Your task to perform on an android device: Open wifi settings Image 0: 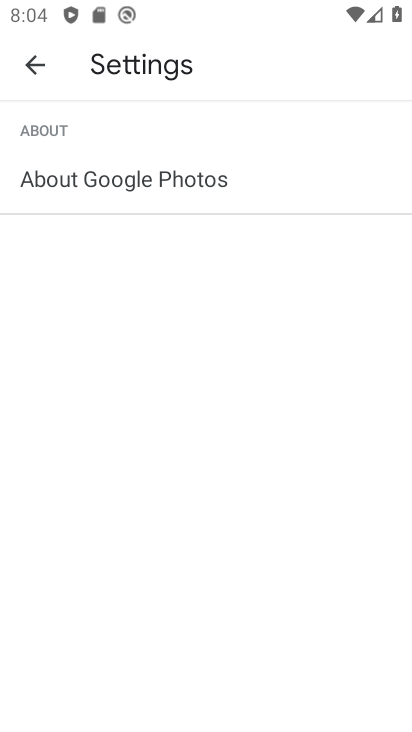
Step 0: press home button
Your task to perform on an android device: Open wifi settings Image 1: 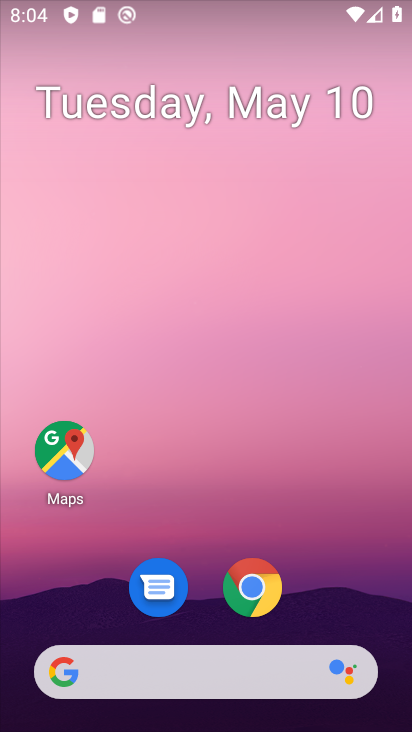
Step 1: drag from (329, 617) to (276, 157)
Your task to perform on an android device: Open wifi settings Image 2: 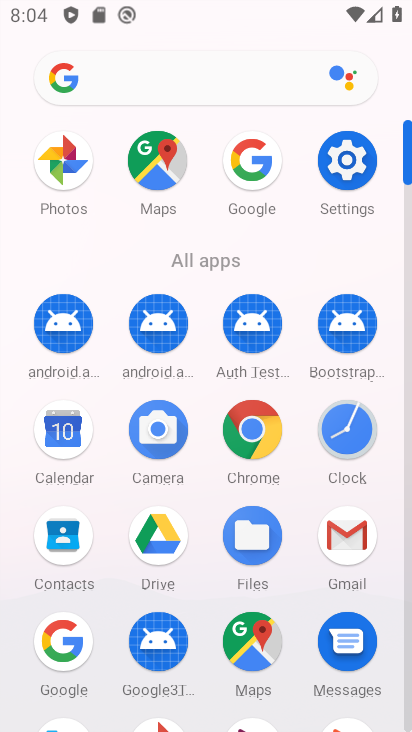
Step 2: click (356, 174)
Your task to perform on an android device: Open wifi settings Image 3: 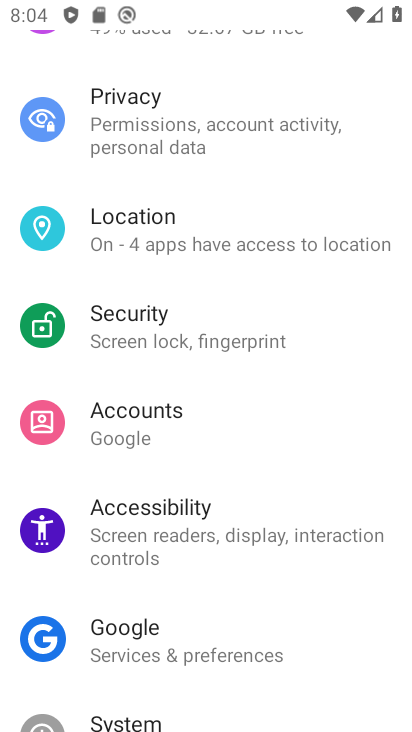
Step 3: drag from (265, 150) to (182, 561)
Your task to perform on an android device: Open wifi settings Image 4: 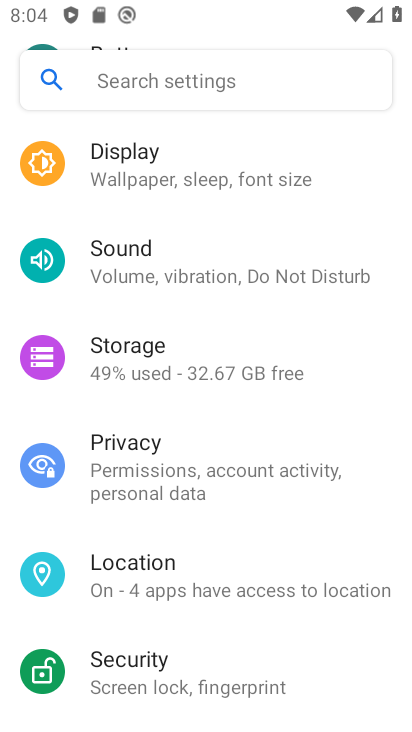
Step 4: drag from (229, 232) to (157, 607)
Your task to perform on an android device: Open wifi settings Image 5: 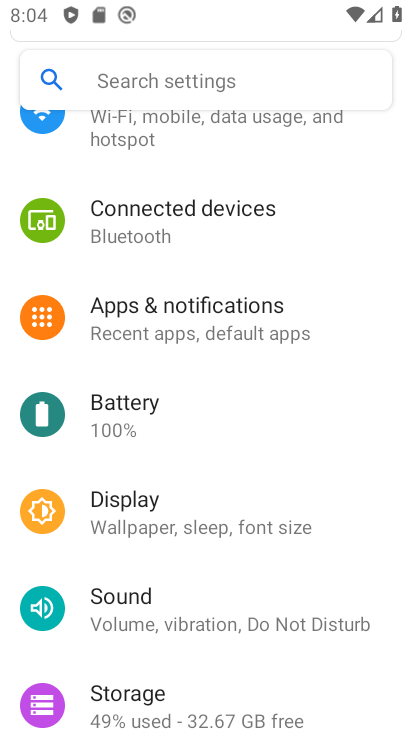
Step 5: drag from (223, 208) to (187, 615)
Your task to perform on an android device: Open wifi settings Image 6: 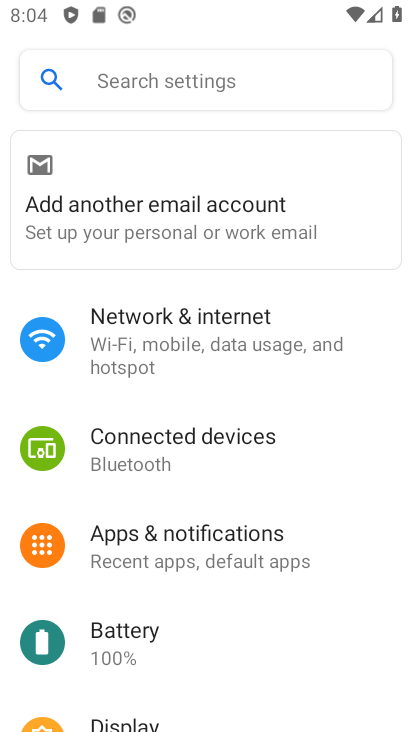
Step 6: click (229, 335)
Your task to perform on an android device: Open wifi settings Image 7: 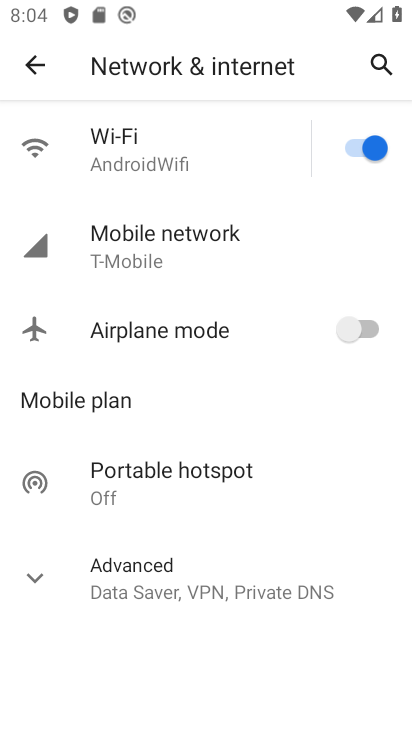
Step 7: click (106, 137)
Your task to perform on an android device: Open wifi settings Image 8: 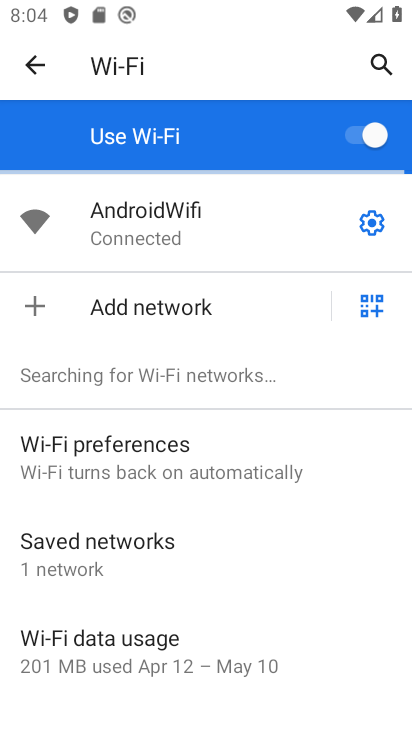
Step 8: task complete